Your task to perform on an android device: turn off location Image 0: 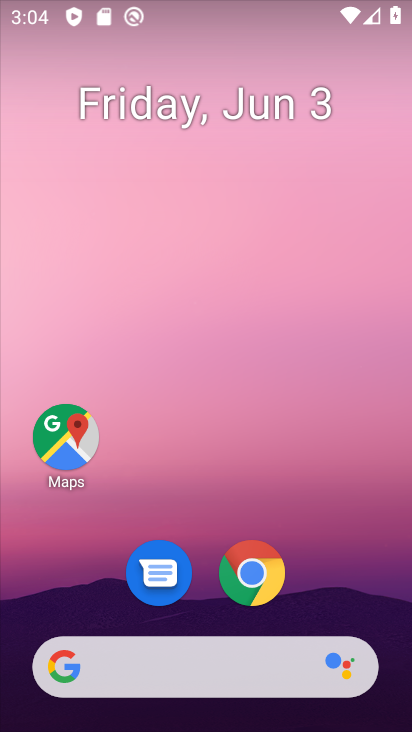
Step 0: drag from (395, 699) to (353, 227)
Your task to perform on an android device: turn off location Image 1: 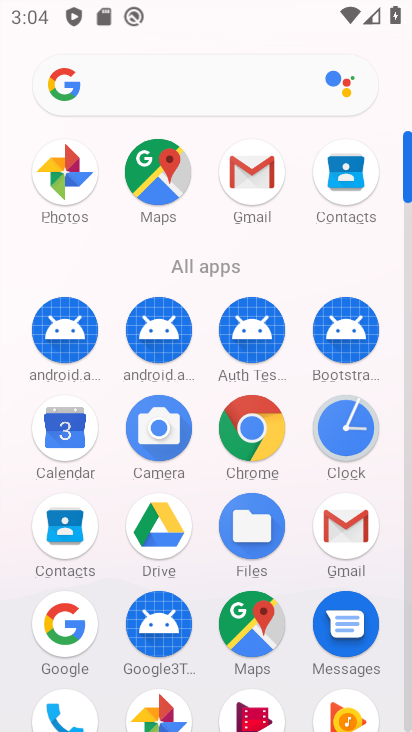
Step 1: drag from (102, 620) to (129, 383)
Your task to perform on an android device: turn off location Image 2: 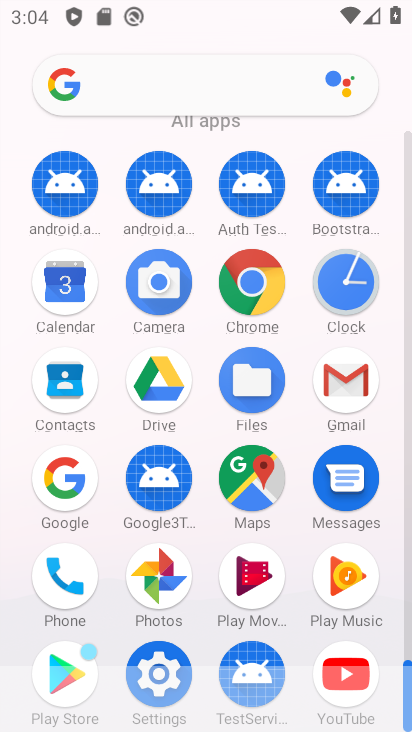
Step 2: click (164, 647)
Your task to perform on an android device: turn off location Image 3: 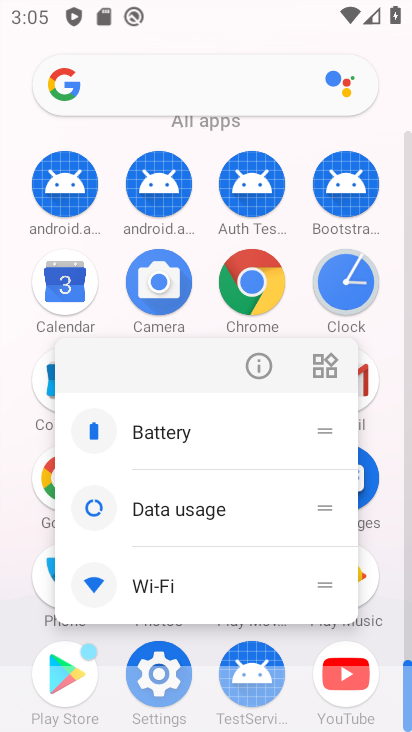
Step 3: click (158, 655)
Your task to perform on an android device: turn off location Image 4: 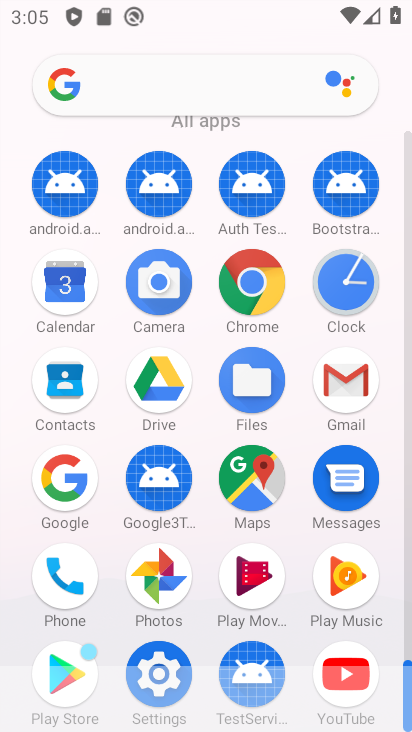
Step 4: click (157, 647)
Your task to perform on an android device: turn off location Image 5: 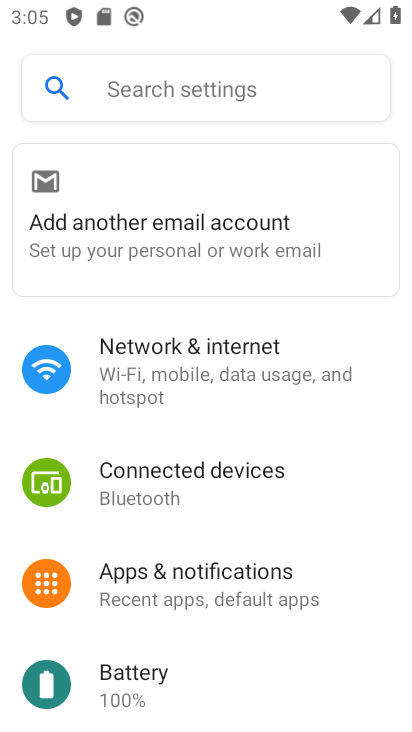
Step 5: drag from (243, 641) to (254, 368)
Your task to perform on an android device: turn off location Image 6: 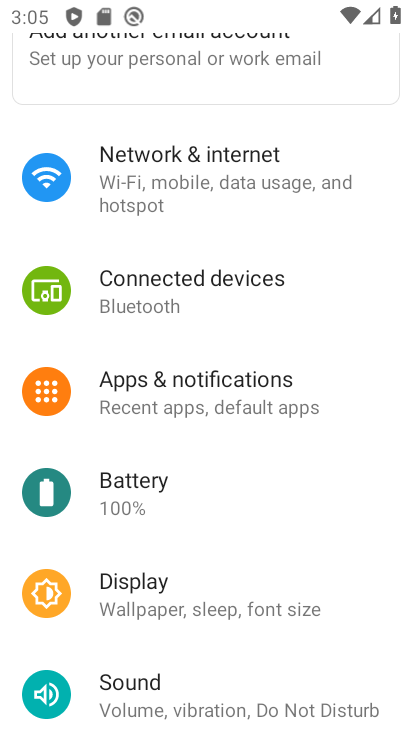
Step 6: drag from (262, 636) to (296, 399)
Your task to perform on an android device: turn off location Image 7: 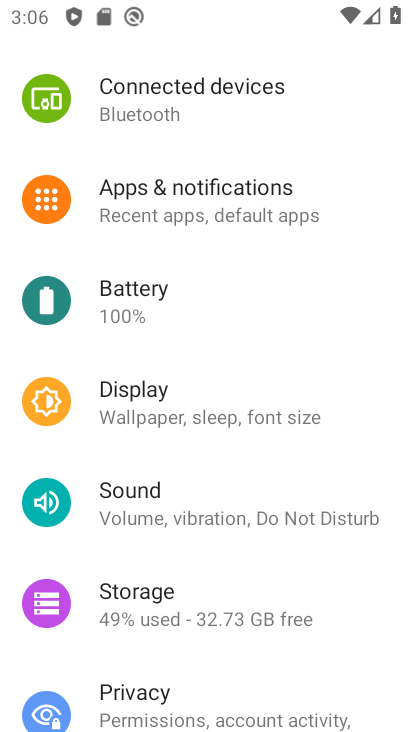
Step 7: drag from (203, 663) to (216, 262)
Your task to perform on an android device: turn off location Image 8: 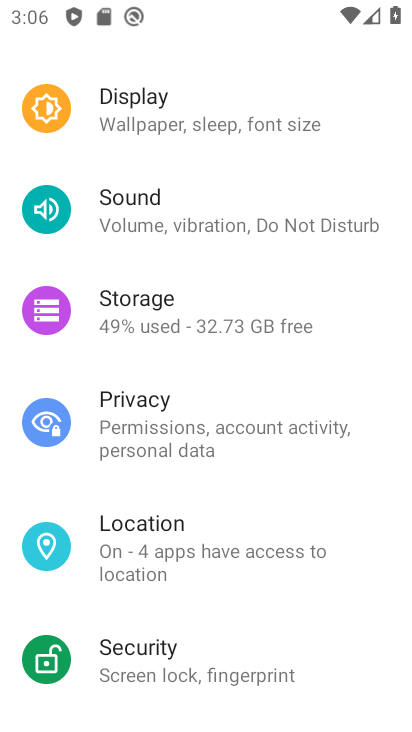
Step 8: click (141, 544)
Your task to perform on an android device: turn off location Image 9: 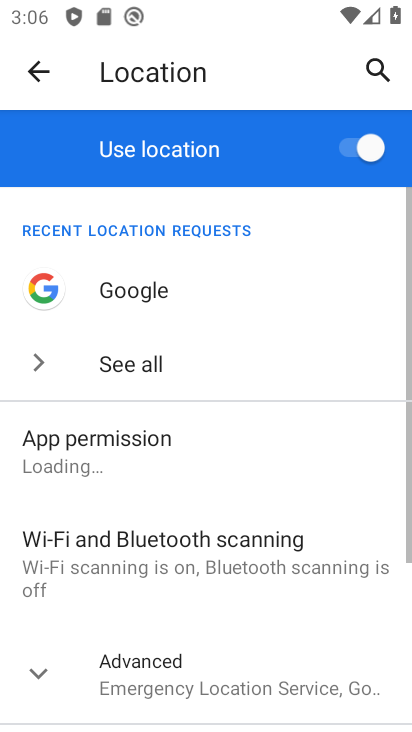
Step 9: click (344, 150)
Your task to perform on an android device: turn off location Image 10: 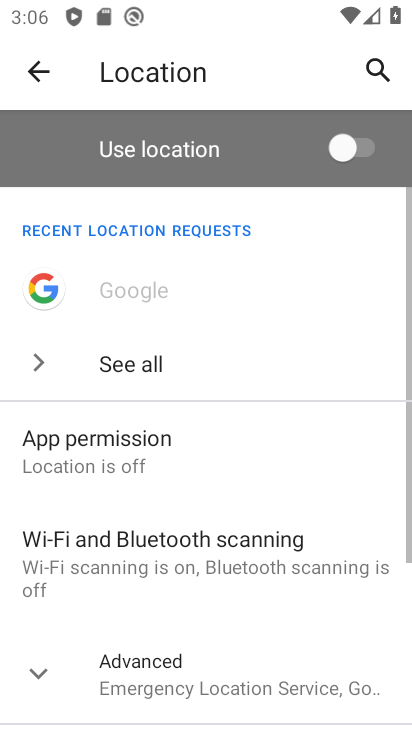
Step 10: task complete